Your task to perform on an android device: Open the phone app and click the voicemail tab. Image 0: 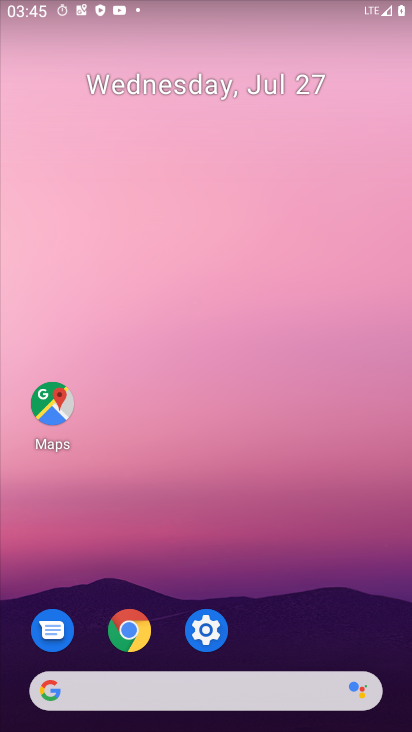
Step 0: drag from (213, 681) to (216, 245)
Your task to perform on an android device: Open the phone app and click the voicemail tab. Image 1: 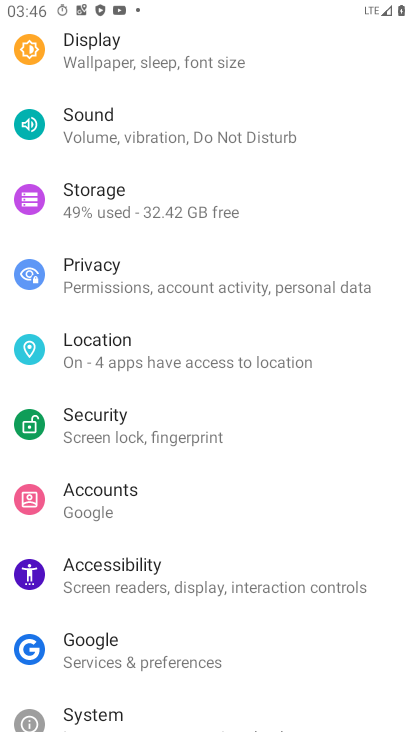
Step 1: press back button
Your task to perform on an android device: Open the phone app and click the voicemail tab. Image 2: 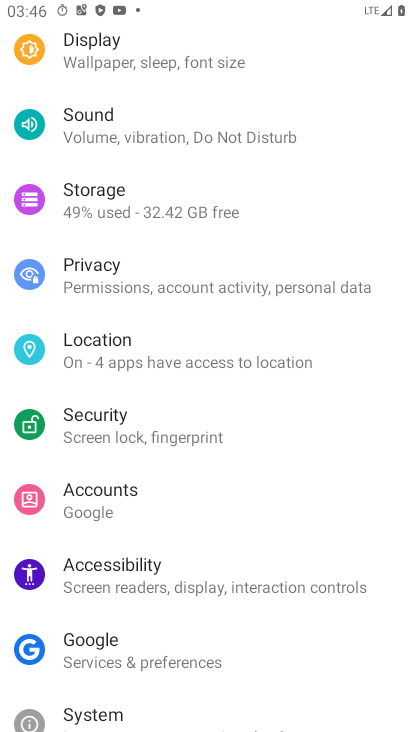
Step 2: press back button
Your task to perform on an android device: Open the phone app and click the voicemail tab. Image 3: 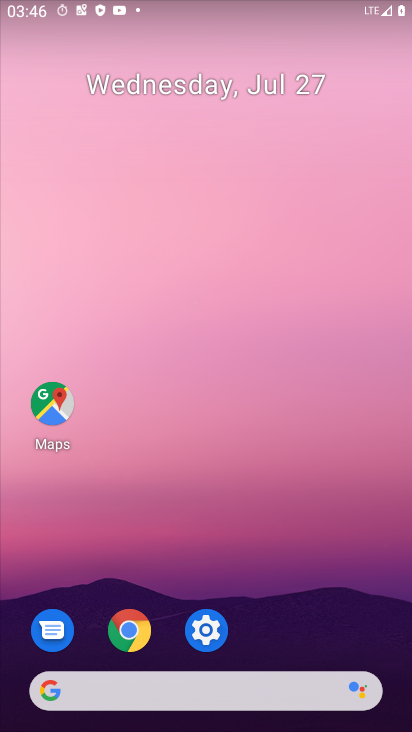
Step 3: drag from (274, 548) to (254, 32)
Your task to perform on an android device: Open the phone app and click the voicemail tab. Image 4: 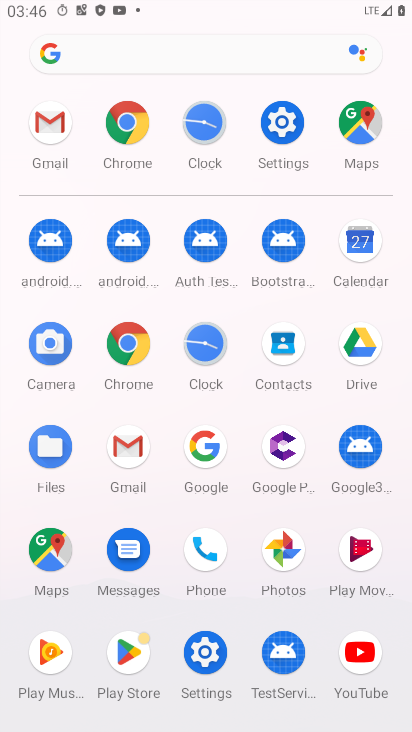
Step 4: click (278, 20)
Your task to perform on an android device: Open the phone app and click the voicemail tab. Image 5: 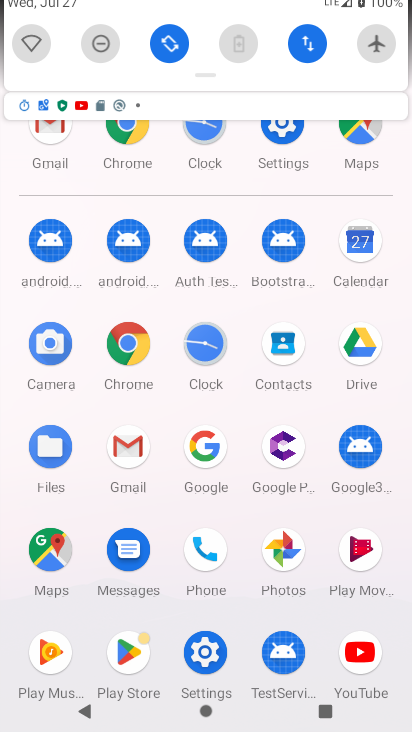
Step 5: click (204, 545)
Your task to perform on an android device: Open the phone app and click the voicemail tab. Image 6: 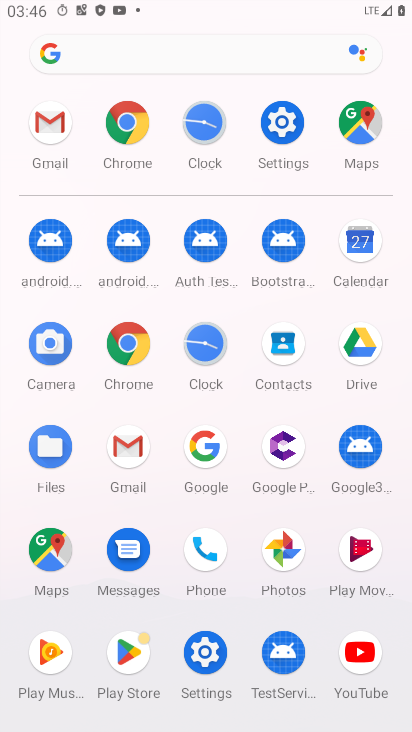
Step 6: click (210, 549)
Your task to perform on an android device: Open the phone app and click the voicemail tab. Image 7: 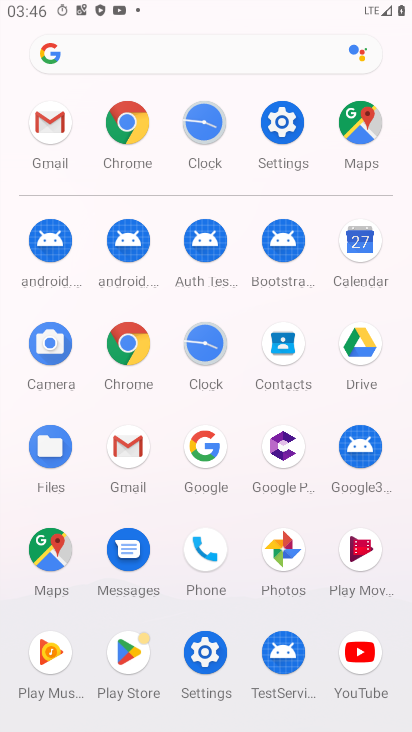
Step 7: click (210, 549)
Your task to perform on an android device: Open the phone app and click the voicemail tab. Image 8: 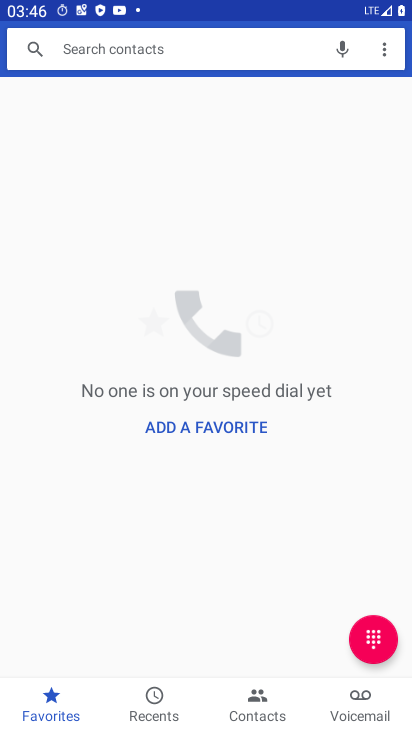
Step 8: click (208, 549)
Your task to perform on an android device: Open the phone app and click the voicemail tab. Image 9: 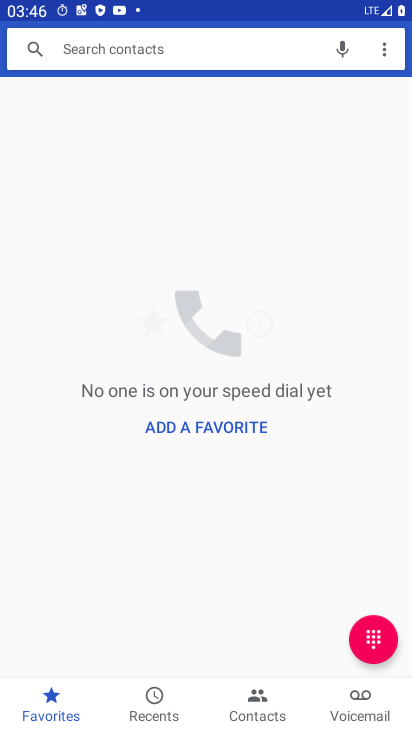
Step 9: click (192, 535)
Your task to perform on an android device: Open the phone app and click the voicemail tab. Image 10: 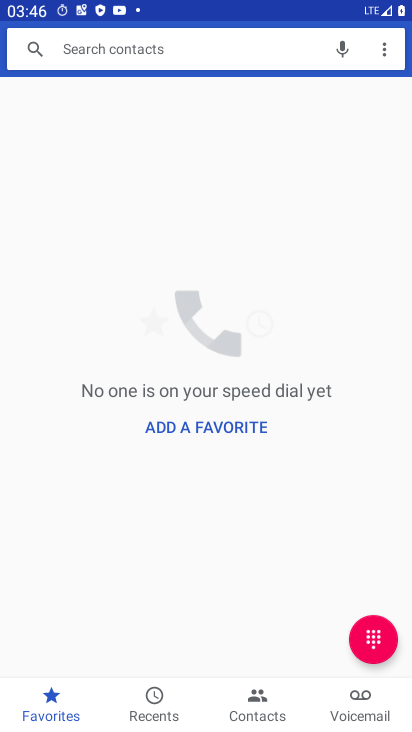
Step 10: click (354, 688)
Your task to perform on an android device: Open the phone app and click the voicemail tab. Image 11: 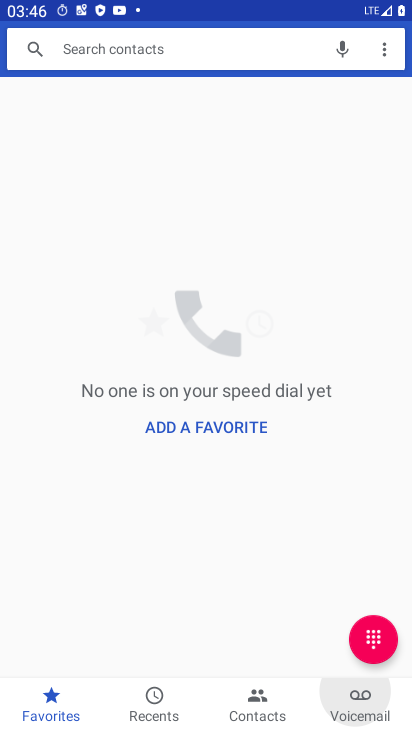
Step 11: click (369, 697)
Your task to perform on an android device: Open the phone app and click the voicemail tab. Image 12: 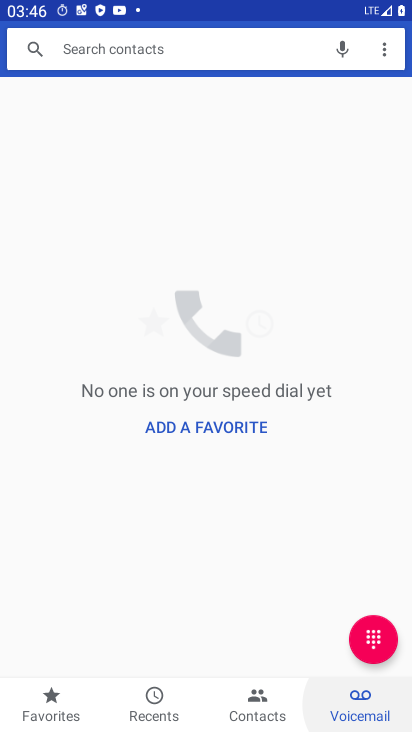
Step 12: click (370, 698)
Your task to perform on an android device: Open the phone app and click the voicemail tab. Image 13: 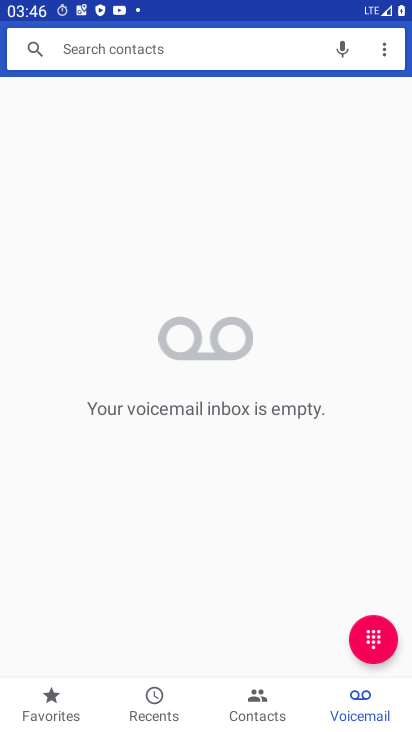
Step 13: task complete